Your task to perform on an android device: turn off sleep mode Image 0: 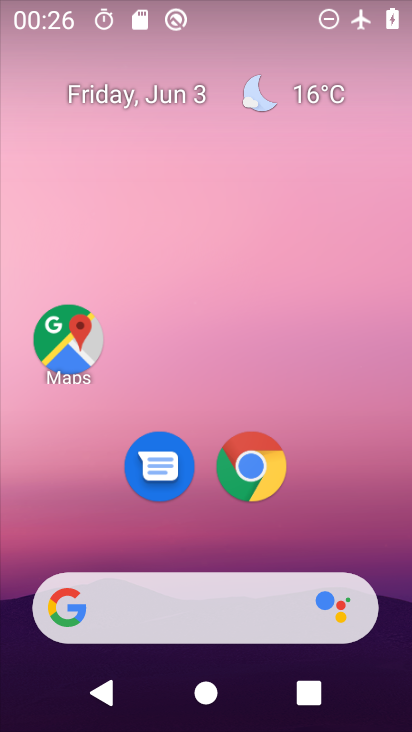
Step 0: drag from (208, 537) to (184, 228)
Your task to perform on an android device: turn off sleep mode Image 1: 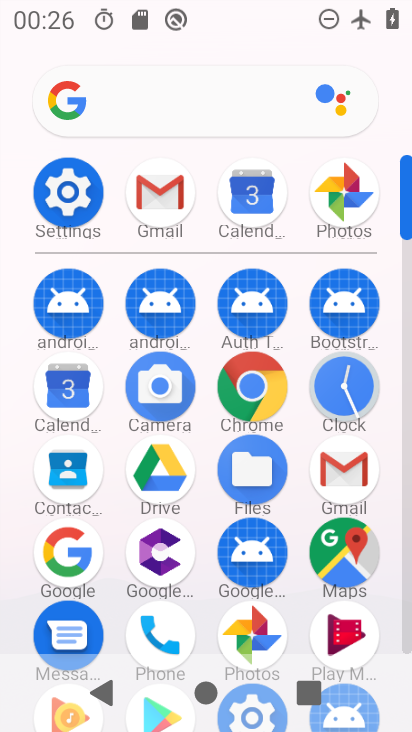
Step 1: click (79, 205)
Your task to perform on an android device: turn off sleep mode Image 2: 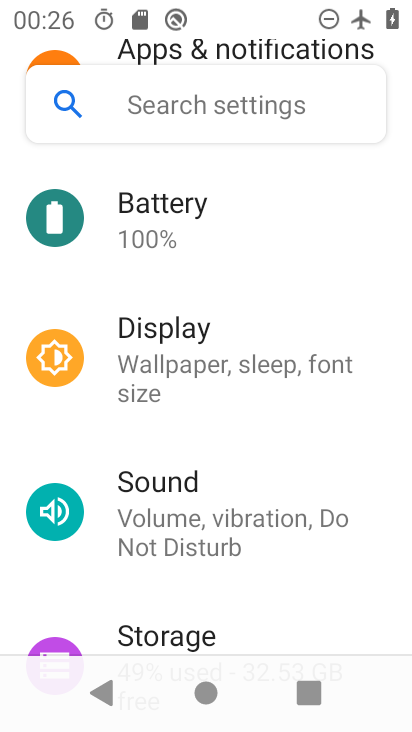
Step 2: click (233, 351)
Your task to perform on an android device: turn off sleep mode Image 3: 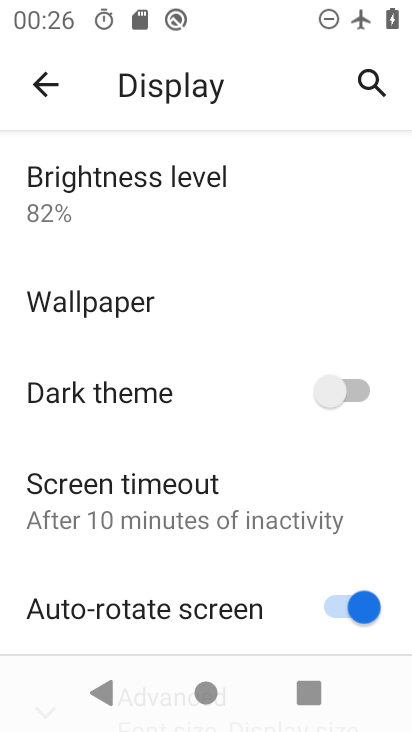
Step 3: click (192, 527)
Your task to perform on an android device: turn off sleep mode Image 4: 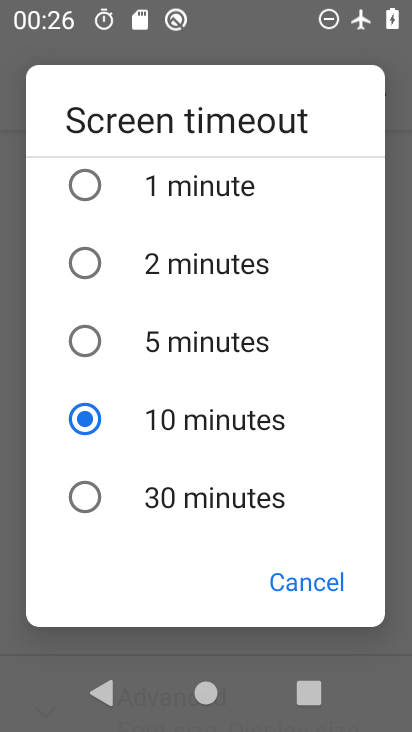
Step 4: click (154, 274)
Your task to perform on an android device: turn off sleep mode Image 5: 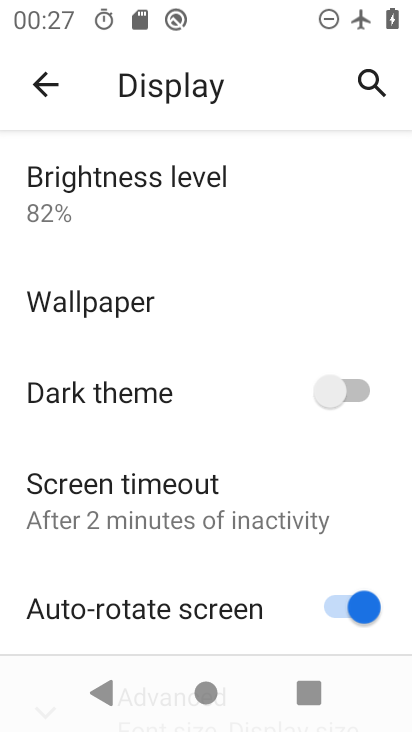
Step 5: task complete